Your task to perform on an android device: clear all cookies in the chrome app Image 0: 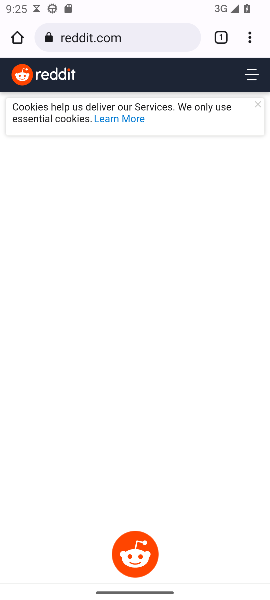
Step 0: press home button
Your task to perform on an android device: clear all cookies in the chrome app Image 1: 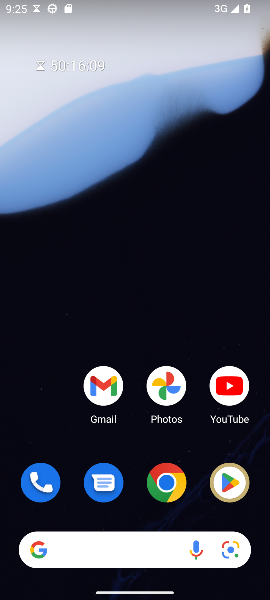
Step 1: drag from (82, 459) to (106, 43)
Your task to perform on an android device: clear all cookies in the chrome app Image 2: 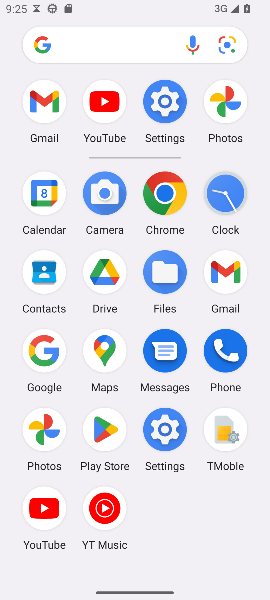
Step 2: click (160, 203)
Your task to perform on an android device: clear all cookies in the chrome app Image 3: 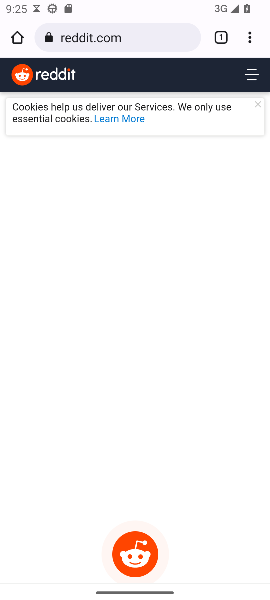
Step 3: drag from (245, 31) to (160, 205)
Your task to perform on an android device: clear all cookies in the chrome app Image 4: 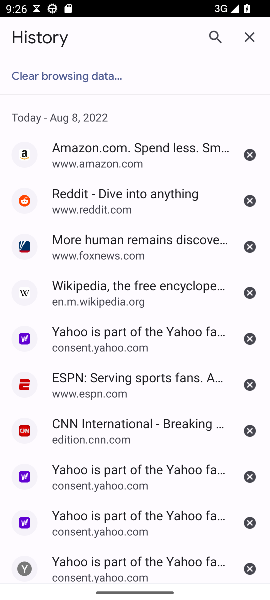
Step 4: click (53, 80)
Your task to perform on an android device: clear all cookies in the chrome app Image 5: 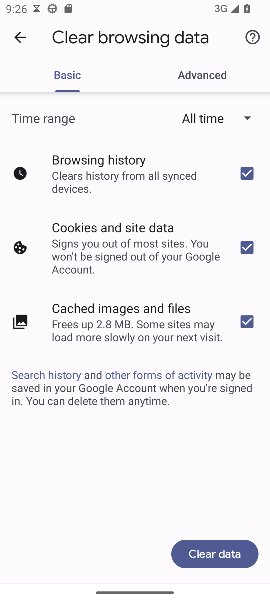
Step 5: click (238, 173)
Your task to perform on an android device: clear all cookies in the chrome app Image 6: 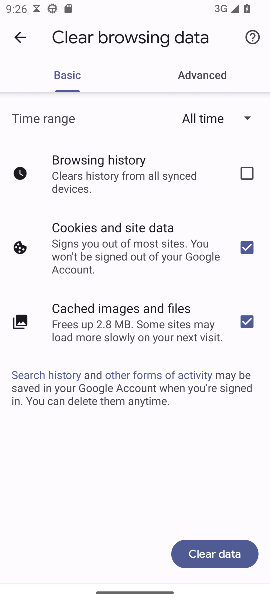
Step 6: click (236, 317)
Your task to perform on an android device: clear all cookies in the chrome app Image 7: 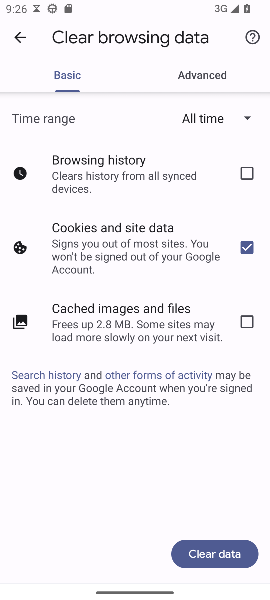
Step 7: click (236, 316)
Your task to perform on an android device: clear all cookies in the chrome app Image 8: 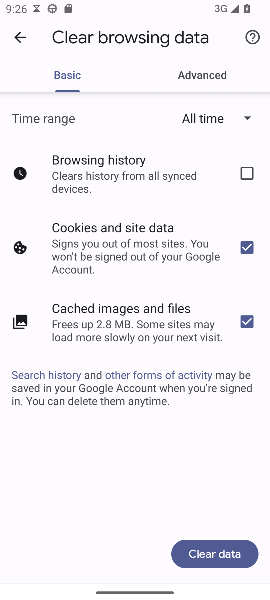
Step 8: click (236, 316)
Your task to perform on an android device: clear all cookies in the chrome app Image 9: 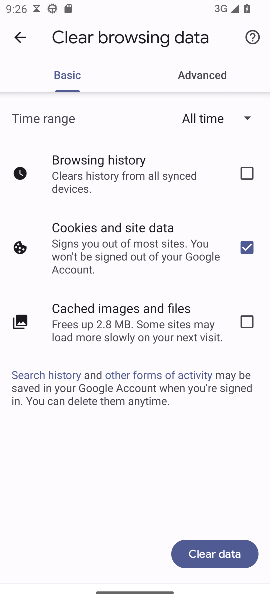
Step 9: click (217, 560)
Your task to perform on an android device: clear all cookies in the chrome app Image 10: 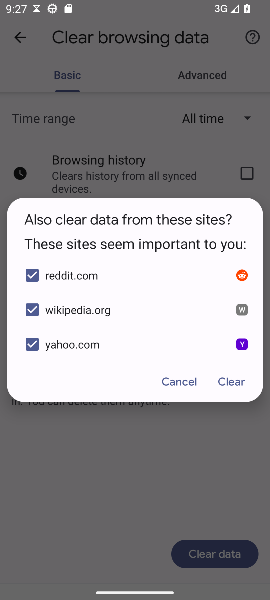
Step 10: click (236, 377)
Your task to perform on an android device: clear all cookies in the chrome app Image 11: 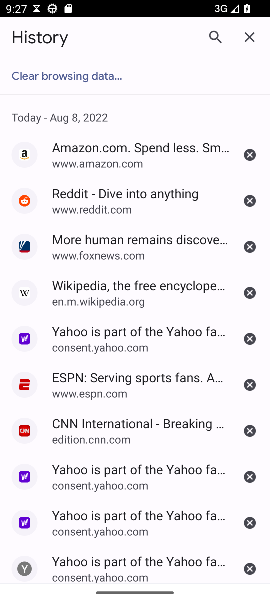
Step 11: press home button
Your task to perform on an android device: clear all cookies in the chrome app Image 12: 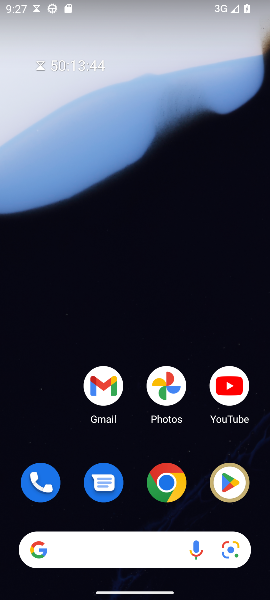
Step 12: drag from (64, 494) to (114, 48)
Your task to perform on an android device: clear all cookies in the chrome app Image 13: 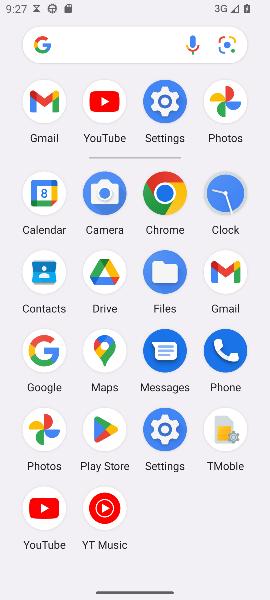
Step 13: click (165, 209)
Your task to perform on an android device: clear all cookies in the chrome app Image 14: 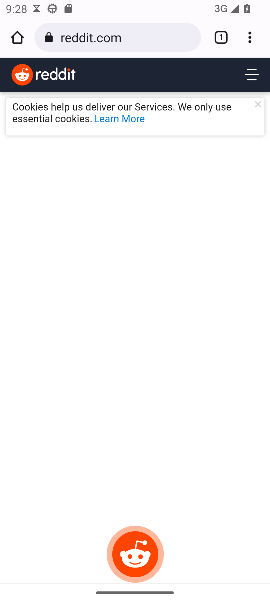
Step 14: drag from (249, 43) to (147, 202)
Your task to perform on an android device: clear all cookies in the chrome app Image 15: 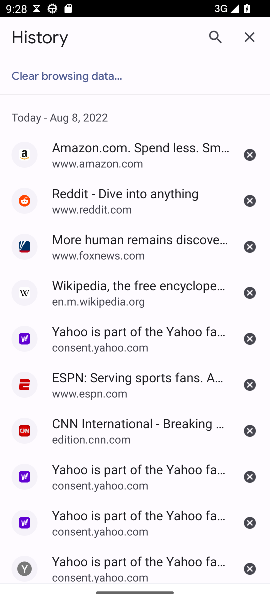
Step 15: click (29, 74)
Your task to perform on an android device: clear all cookies in the chrome app Image 16: 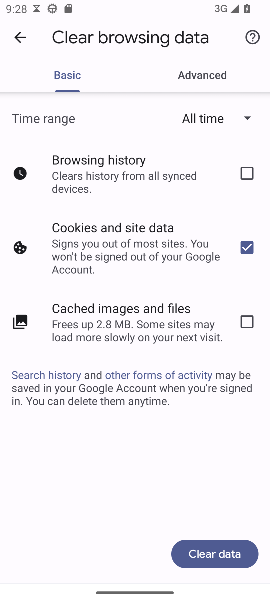
Step 16: click (229, 563)
Your task to perform on an android device: clear all cookies in the chrome app Image 17: 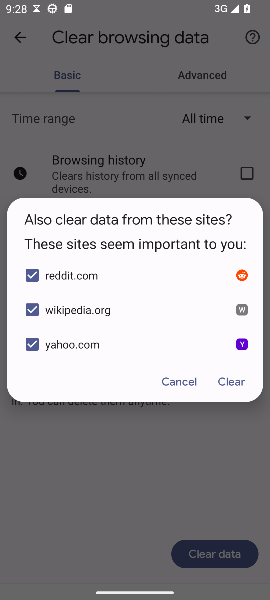
Step 17: click (235, 373)
Your task to perform on an android device: clear all cookies in the chrome app Image 18: 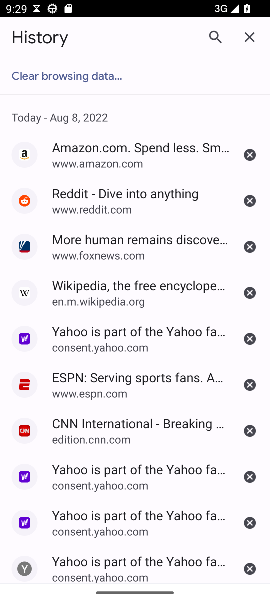
Step 18: task complete